Your task to perform on an android device: turn off priority inbox in the gmail app Image 0: 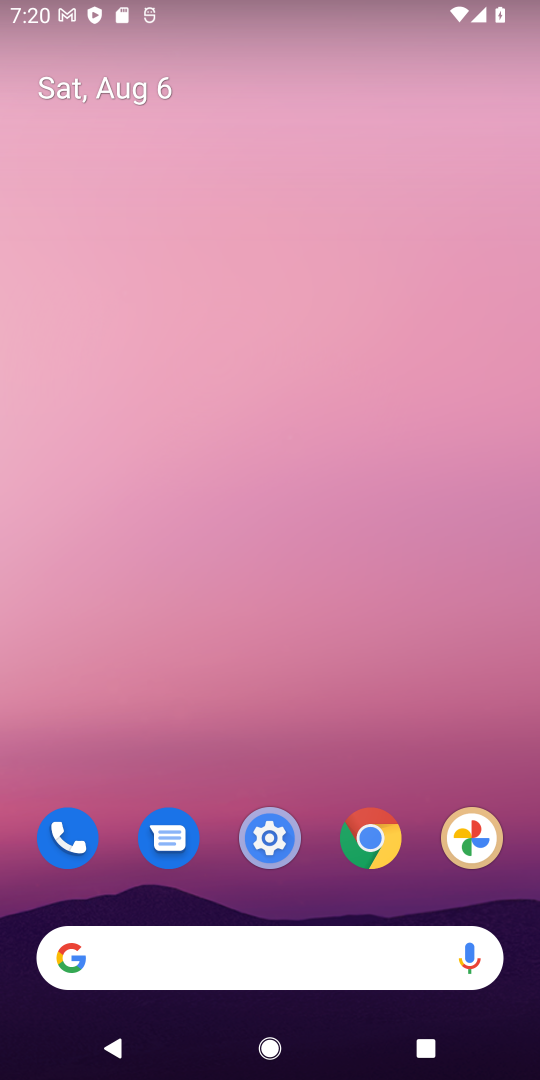
Step 0: drag from (304, 841) to (301, 260)
Your task to perform on an android device: turn off priority inbox in the gmail app Image 1: 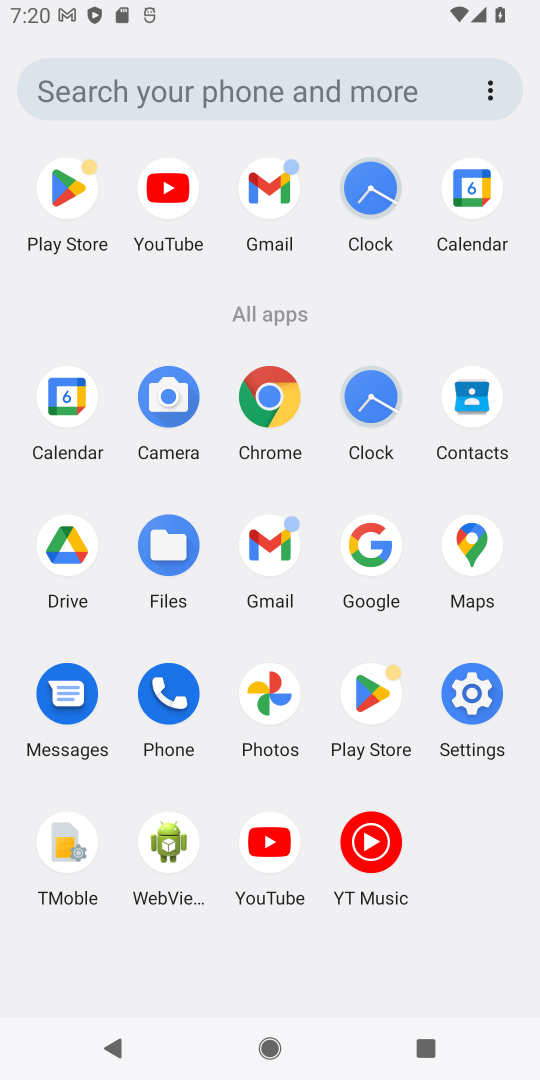
Step 1: click (477, 703)
Your task to perform on an android device: turn off priority inbox in the gmail app Image 2: 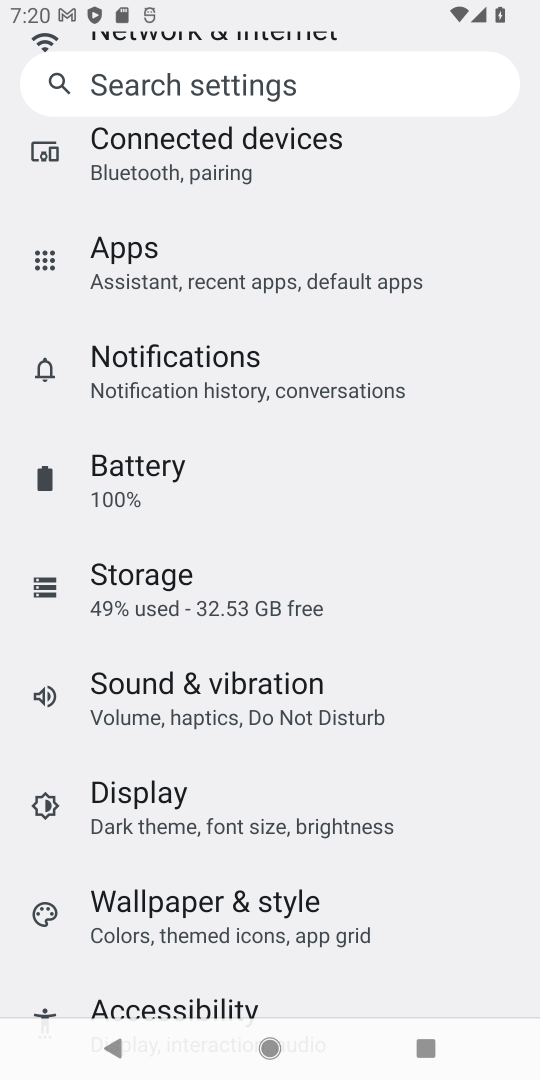
Step 2: press back button
Your task to perform on an android device: turn off priority inbox in the gmail app Image 3: 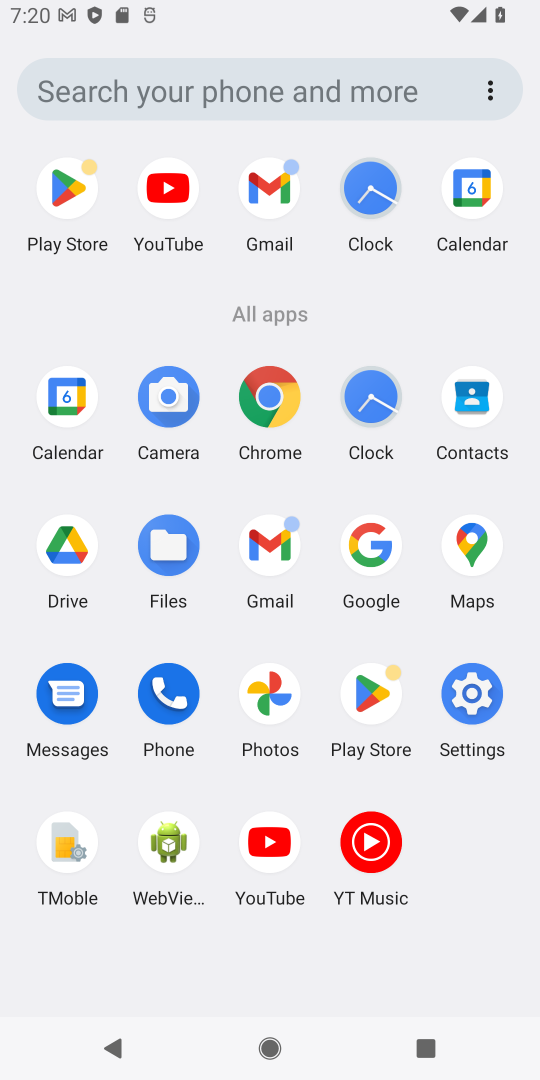
Step 3: click (281, 560)
Your task to perform on an android device: turn off priority inbox in the gmail app Image 4: 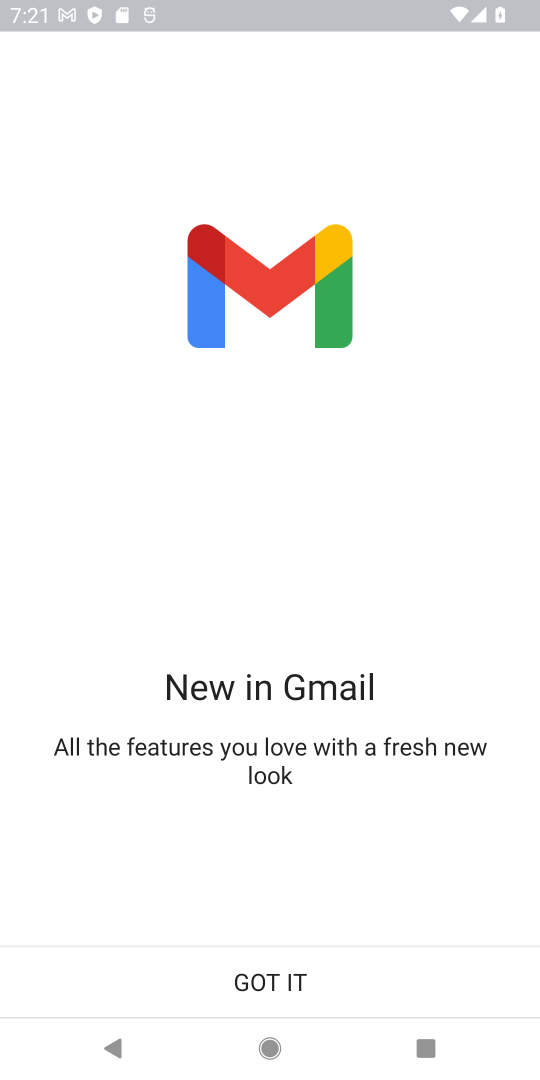
Step 4: click (269, 983)
Your task to perform on an android device: turn off priority inbox in the gmail app Image 5: 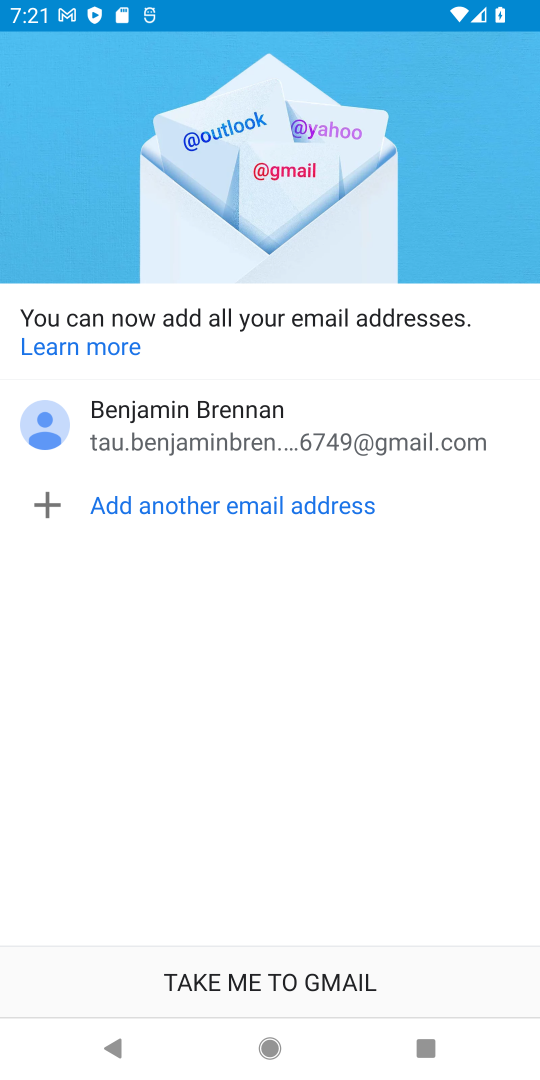
Step 5: click (269, 983)
Your task to perform on an android device: turn off priority inbox in the gmail app Image 6: 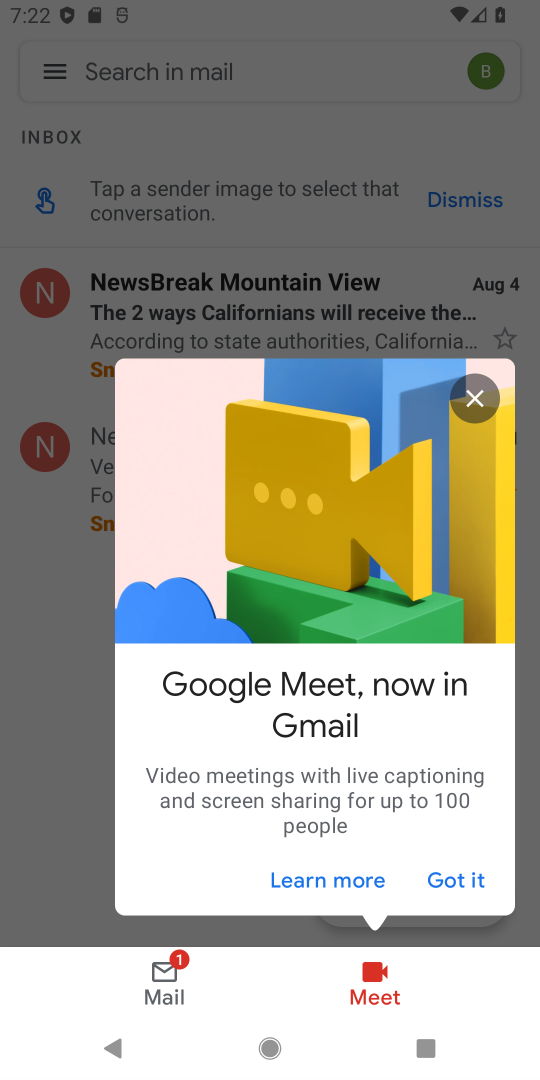
Step 6: click (453, 879)
Your task to perform on an android device: turn off priority inbox in the gmail app Image 7: 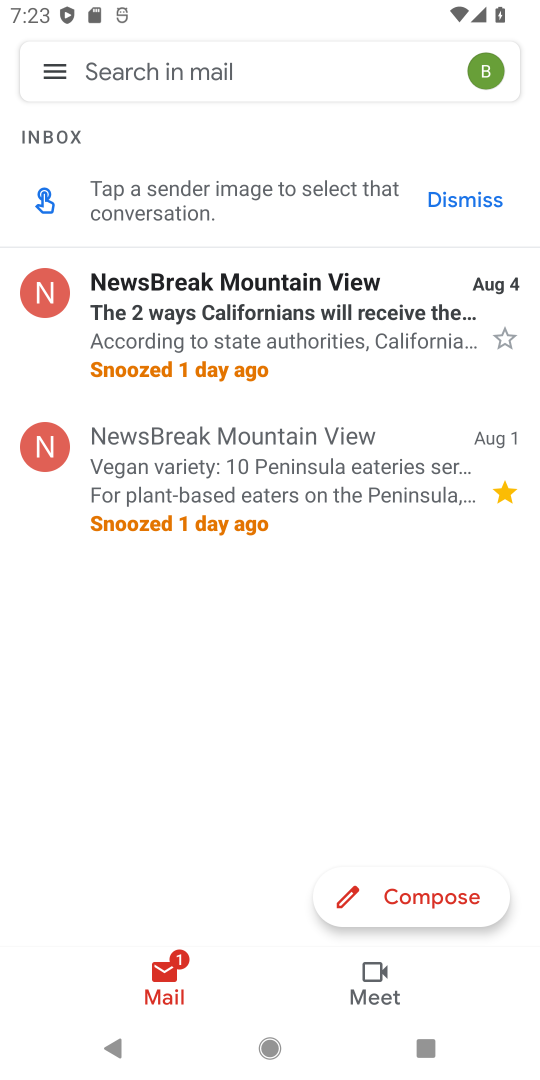
Step 7: click (49, 69)
Your task to perform on an android device: turn off priority inbox in the gmail app Image 8: 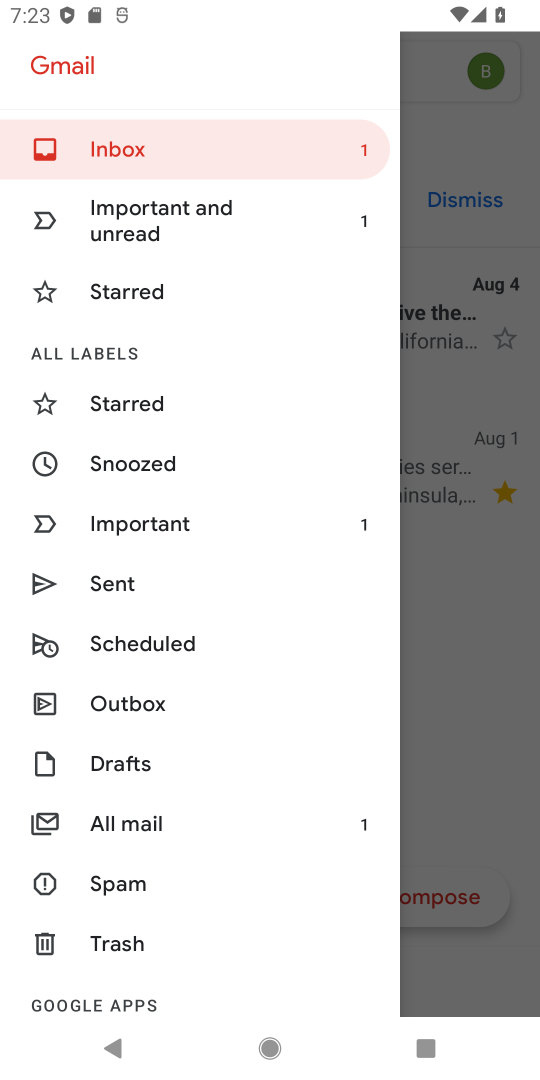
Step 8: drag from (180, 832) to (102, 440)
Your task to perform on an android device: turn off priority inbox in the gmail app Image 9: 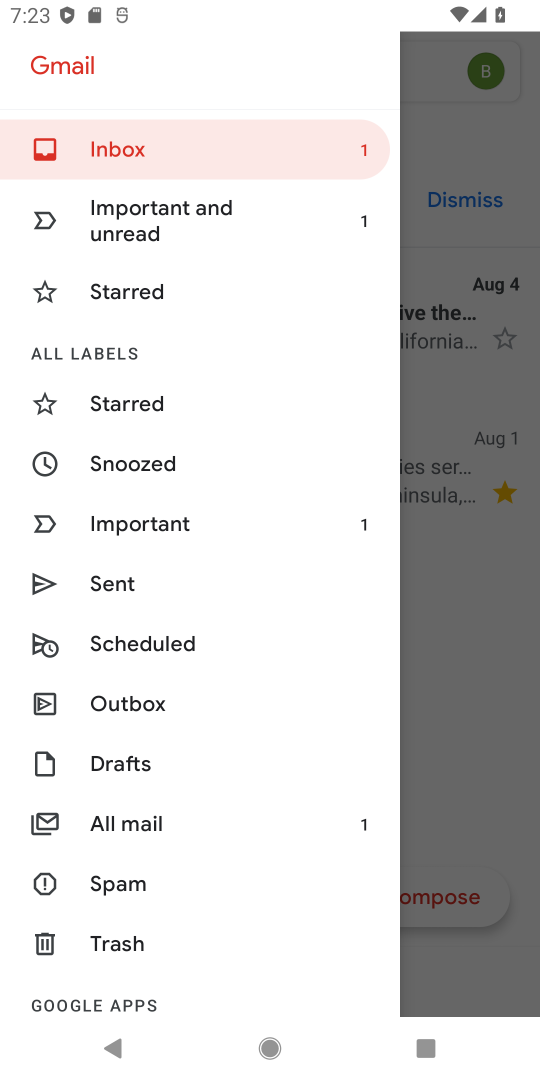
Step 9: drag from (163, 869) to (167, 466)
Your task to perform on an android device: turn off priority inbox in the gmail app Image 10: 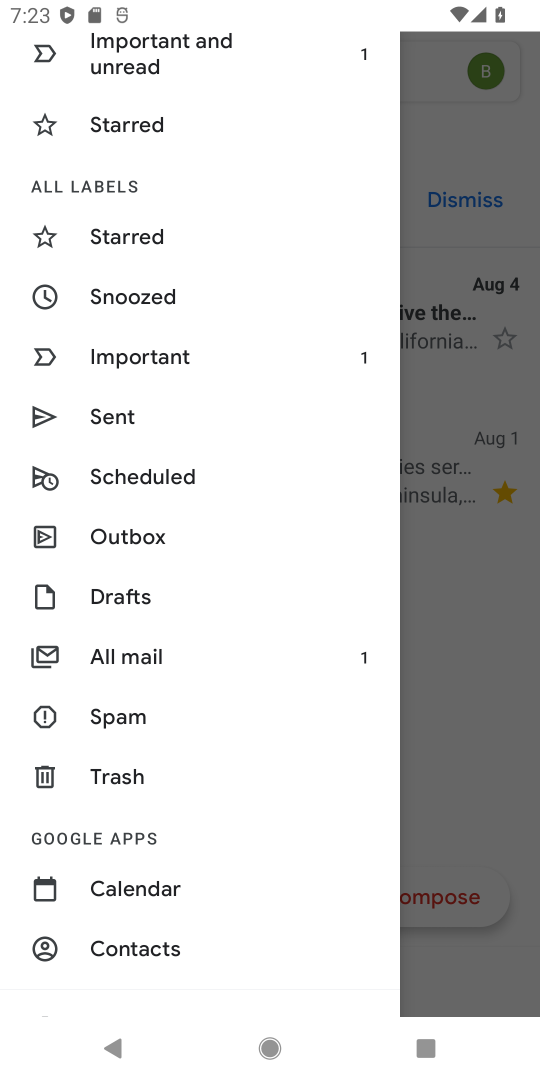
Step 10: drag from (180, 753) to (181, 456)
Your task to perform on an android device: turn off priority inbox in the gmail app Image 11: 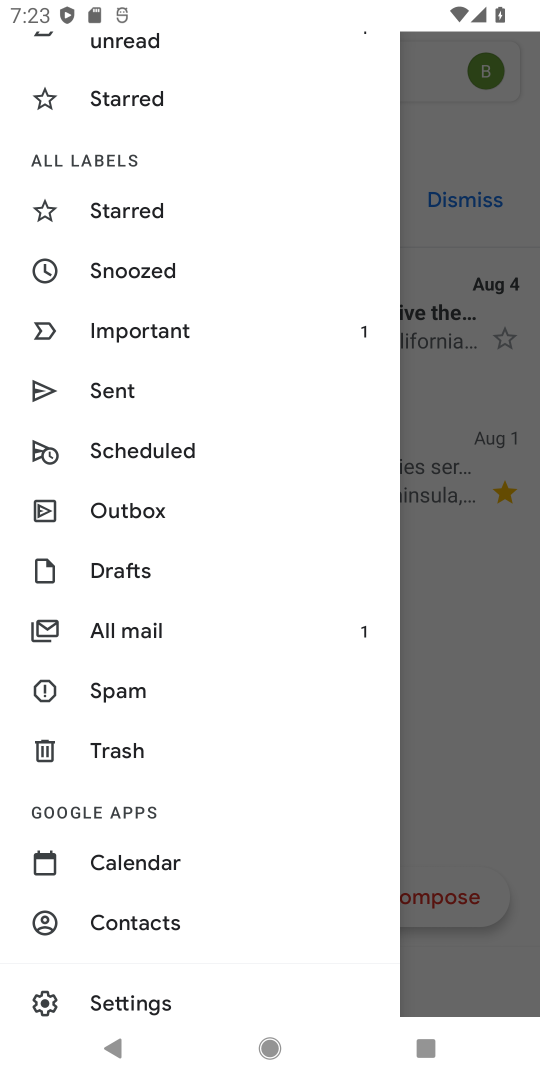
Step 11: click (117, 1000)
Your task to perform on an android device: turn off priority inbox in the gmail app Image 12: 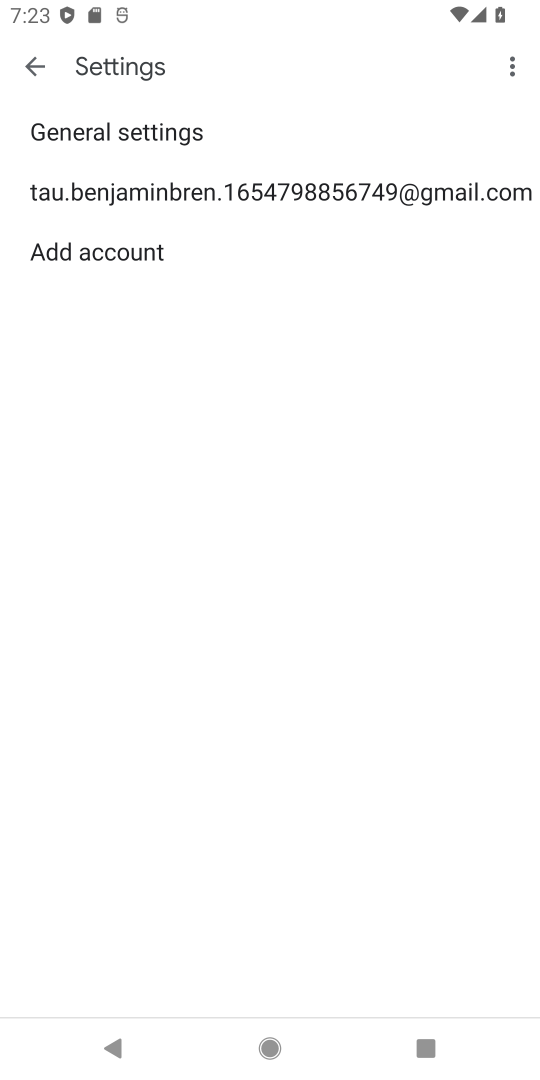
Step 12: click (171, 201)
Your task to perform on an android device: turn off priority inbox in the gmail app Image 13: 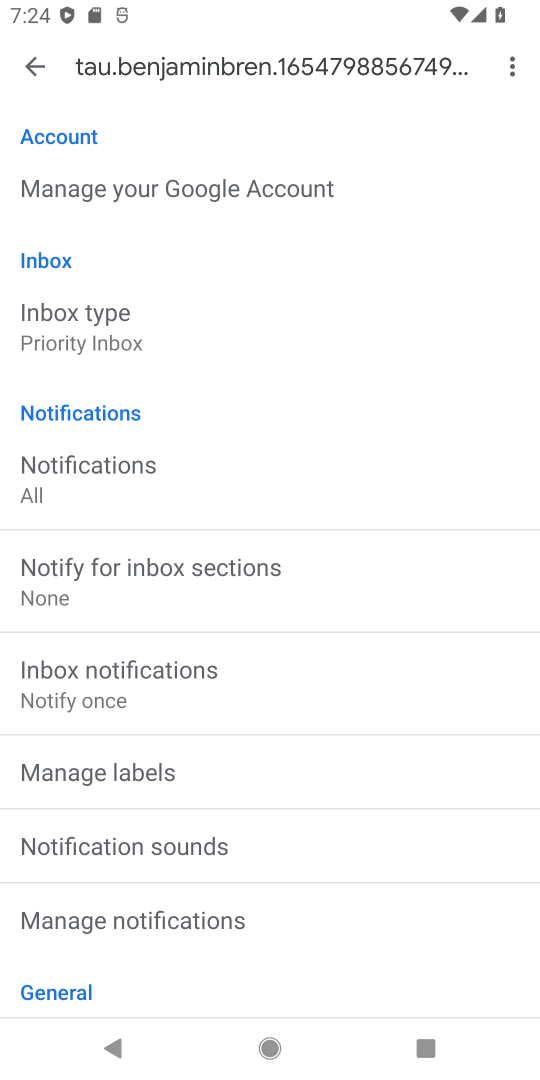
Step 13: click (82, 321)
Your task to perform on an android device: turn off priority inbox in the gmail app Image 14: 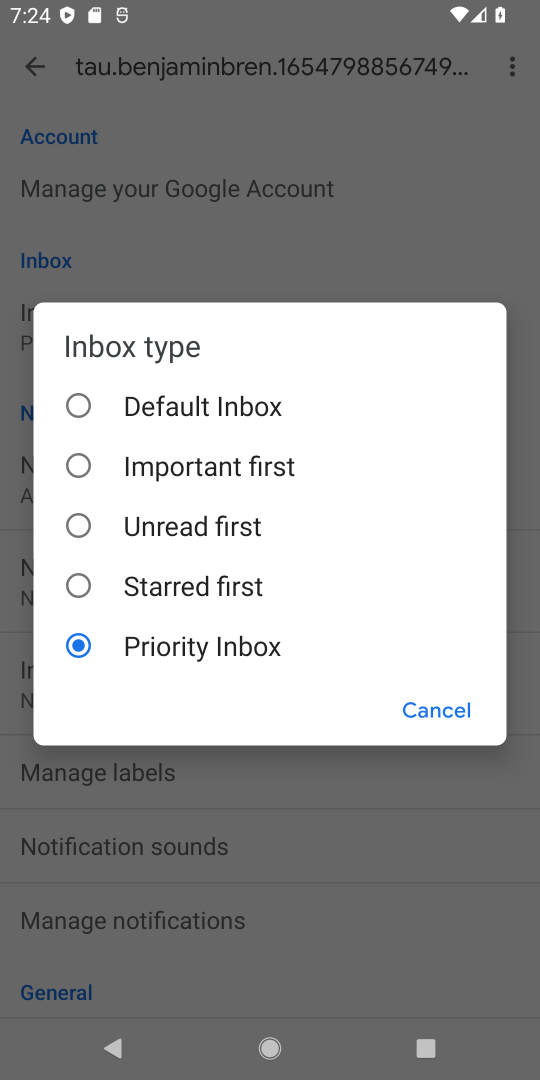
Step 14: click (82, 321)
Your task to perform on an android device: turn off priority inbox in the gmail app Image 15: 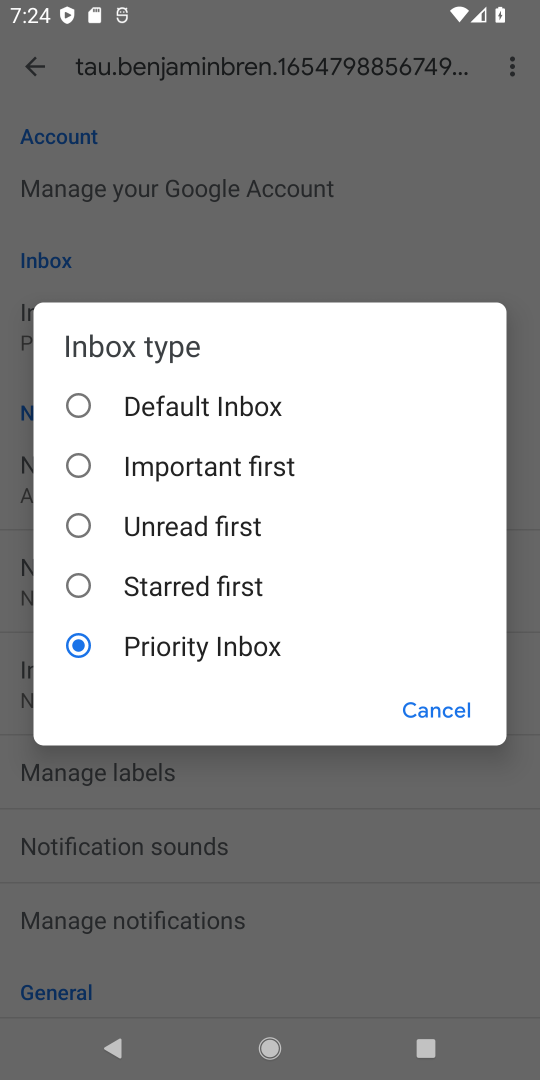
Step 15: click (82, 399)
Your task to perform on an android device: turn off priority inbox in the gmail app Image 16: 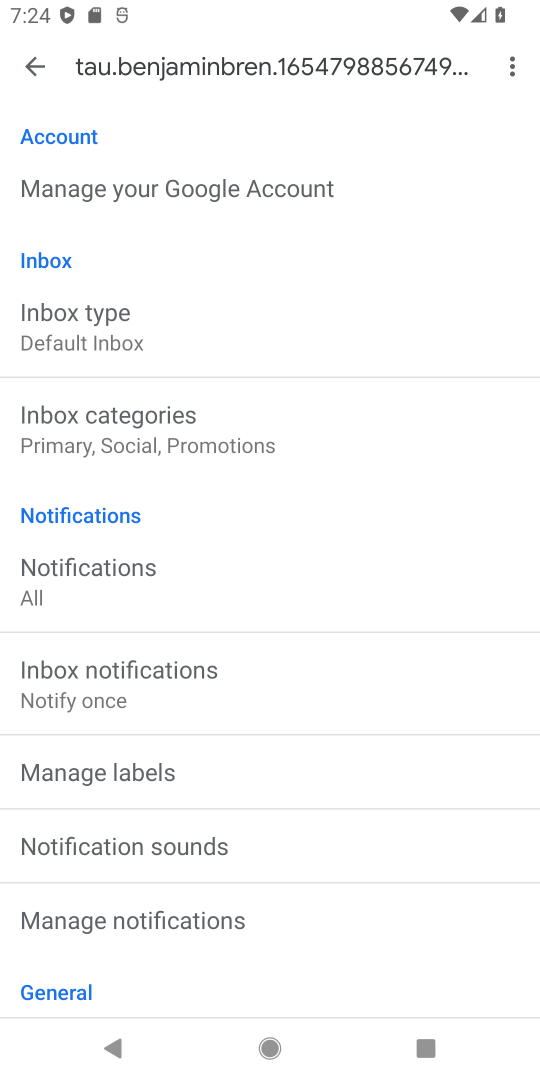
Step 16: task complete